Your task to perform on an android device: Go to battery settings Image 0: 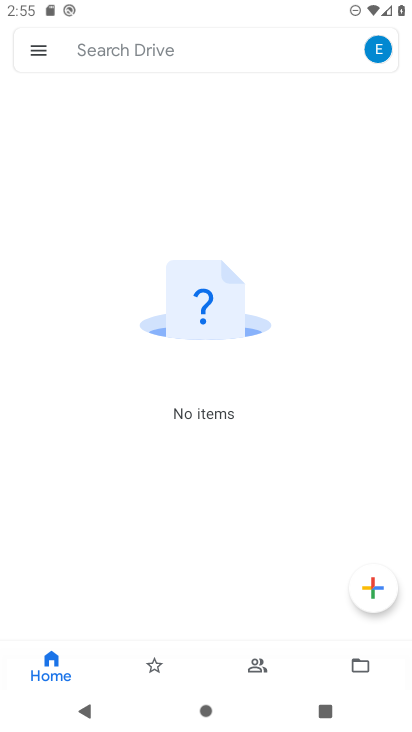
Step 0: press home button
Your task to perform on an android device: Go to battery settings Image 1: 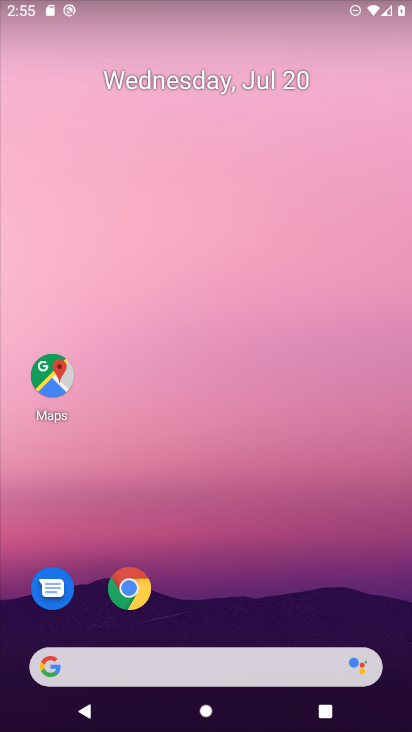
Step 1: drag from (239, 633) to (397, 159)
Your task to perform on an android device: Go to battery settings Image 2: 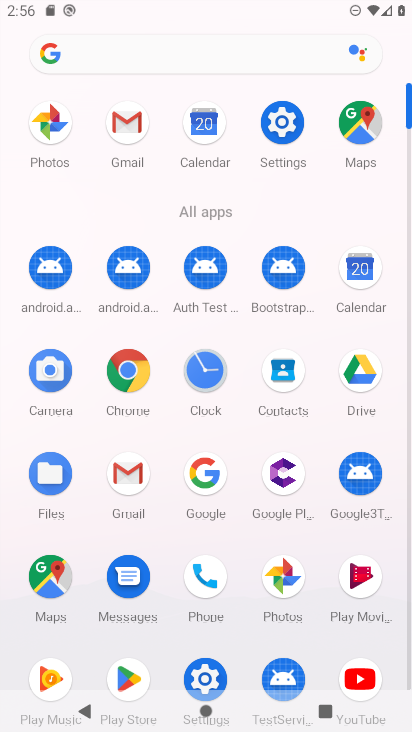
Step 2: click (290, 123)
Your task to perform on an android device: Go to battery settings Image 3: 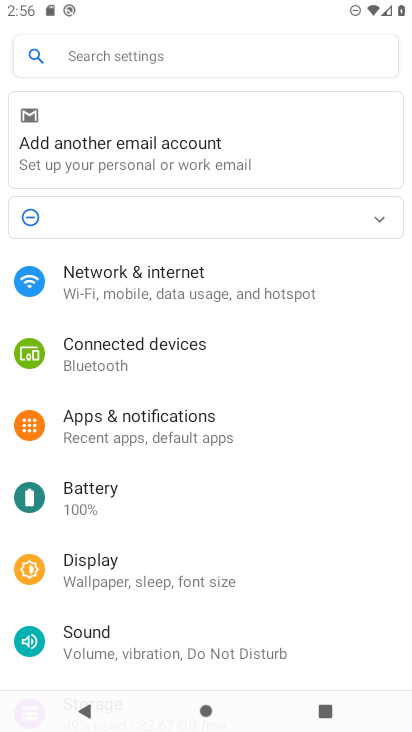
Step 3: click (129, 494)
Your task to perform on an android device: Go to battery settings Image 4: 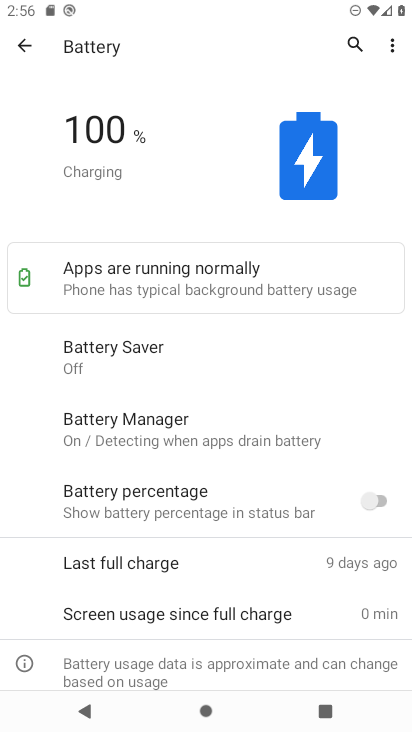
Step 4: task complete